Your task to perform on an android device: Open location settings Image 0: 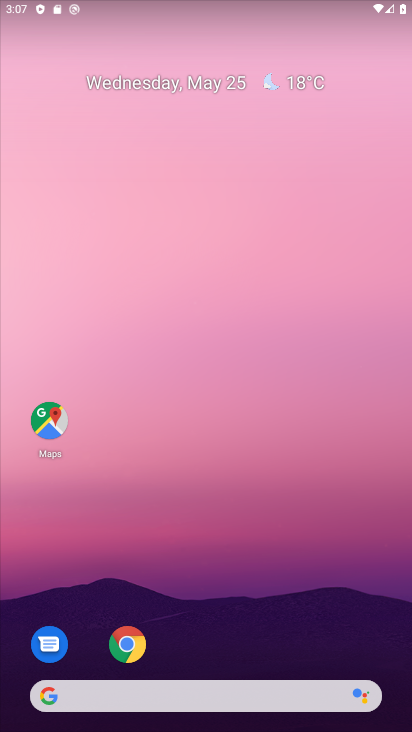
Step 0: drag from (222, 592) to (258, 171)
Your task to perform on an android device: Open location settings Image 1: 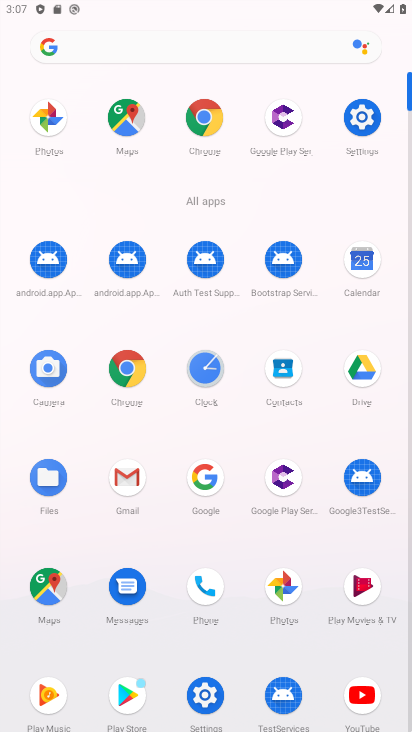
Step 1: click (364, 116)
Your task to perform on an android device: Open location settings Image 2: 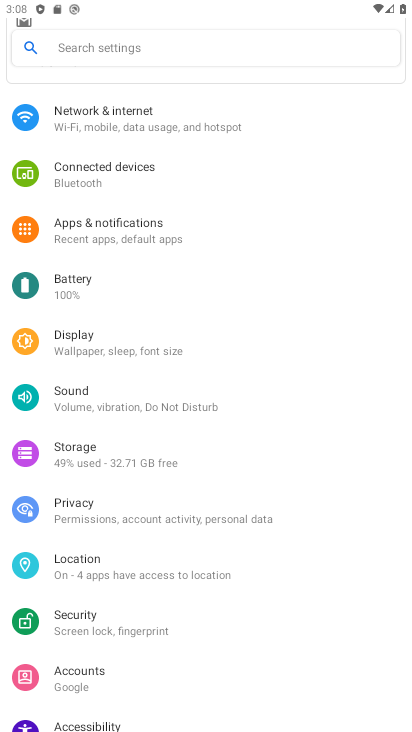
Step 2: click (68, 568)
Your task to perform on an android device: Open location settings Image 3: 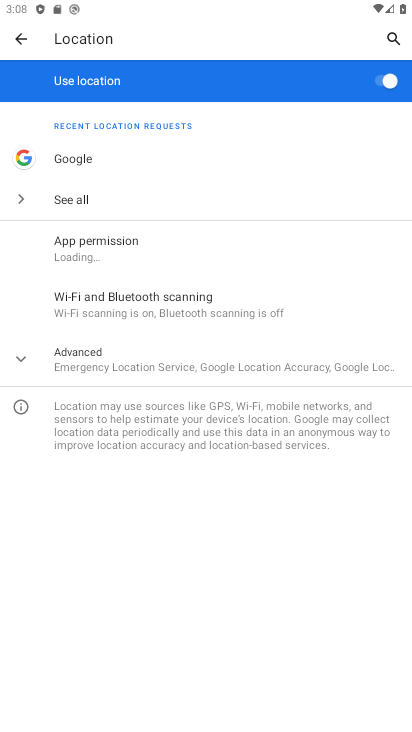
Step 3: task complete